Your task to perform on an android device: Go to notification settings Image 0: 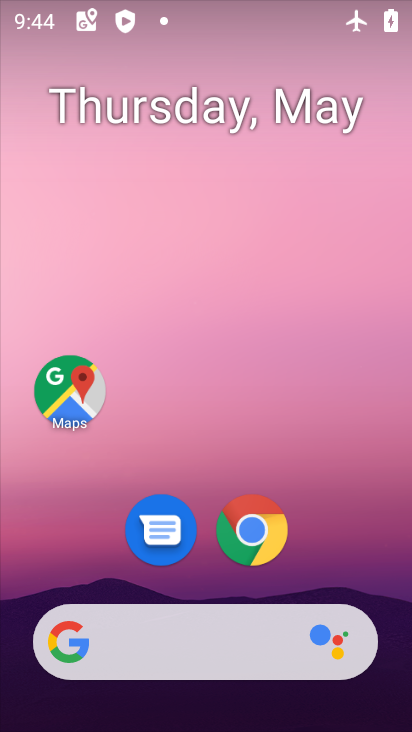
Step 0: drag from (191, 711) to (326, 206)
Your task to perform on an android device: Go to notification settings Image 1: 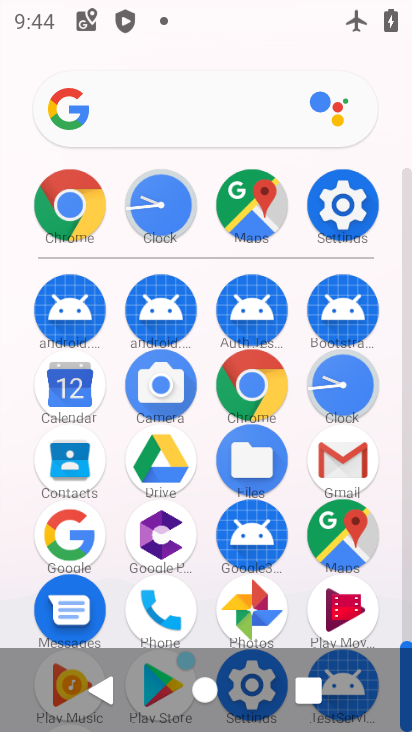
Step 1: click (342, 214)
Your task to perform on an android device: Go to notification settings Image 2: 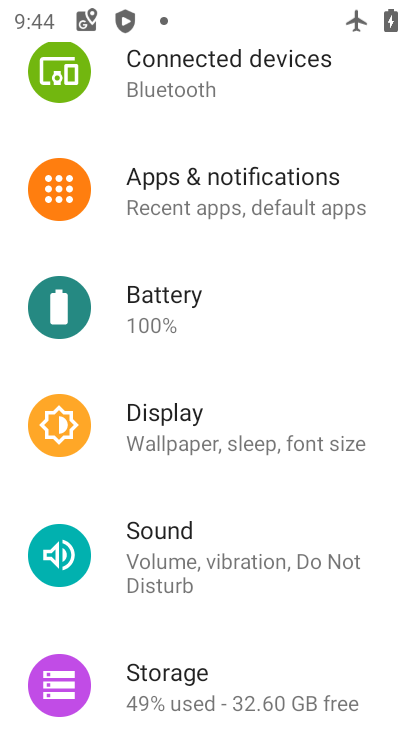
Step 2: click (265, 196)
Your task to perform on an android device: Go to notification settings Image 3: 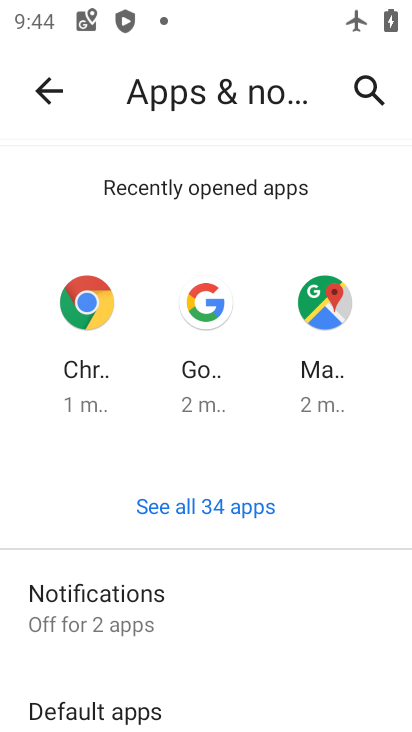
Step 3: task complete